Your task to perform on an android device: turn off notifications settings in the gmail app Image 0: 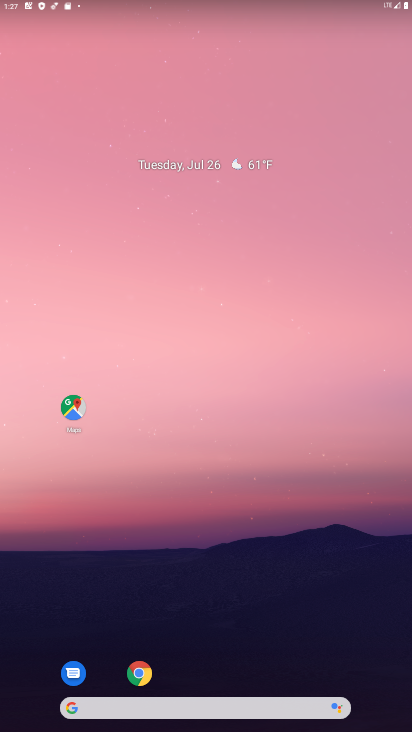
Step 0: drag from (195, 727) to (151, 158)
Your task to perform on an android device: turn off notifications settings in the gmail app Image 1: 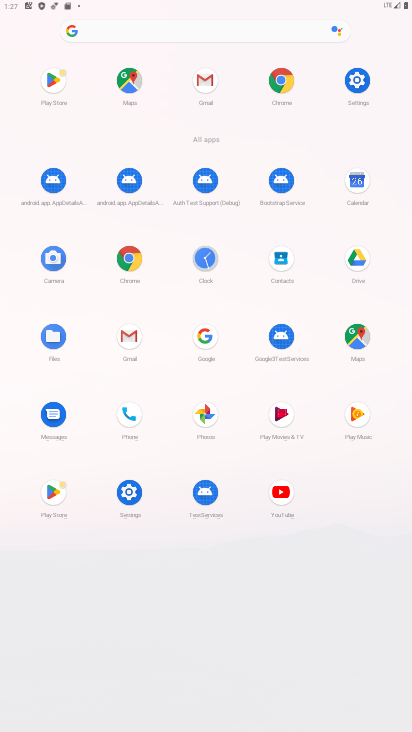
Step 1: click (128, 338)
Your task to perform on an android device: turn off notifications settings in the gmail app Image 2: 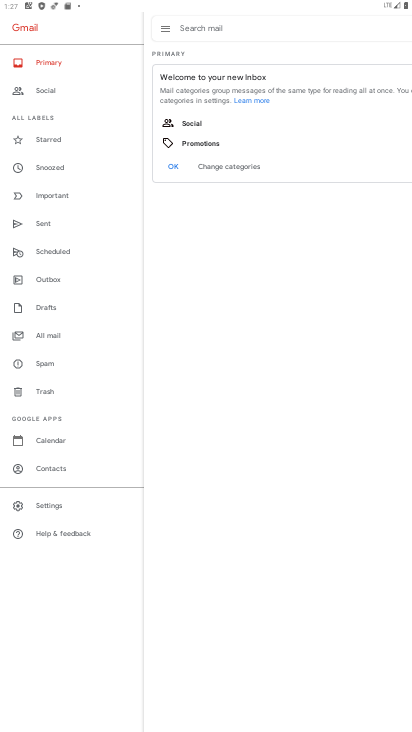
Step 2: click (42, 504)
Your task to perform on an android device: turn off notifications settings in the gmail app Image 3: 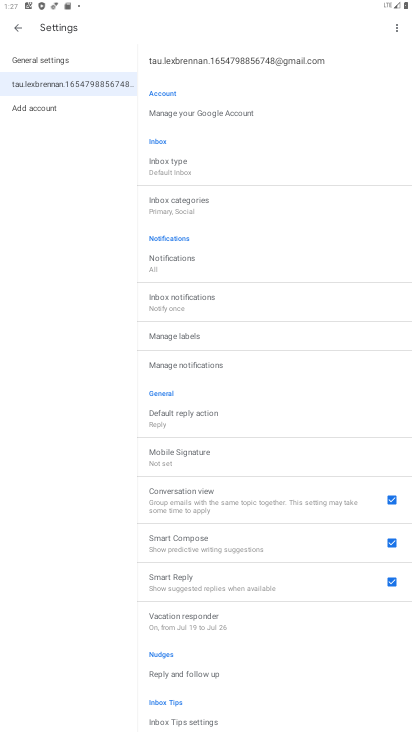
Step 3: click (168, 258)
Your task to perform on an android device: turn off notifications settings in the gmail app Image 4: 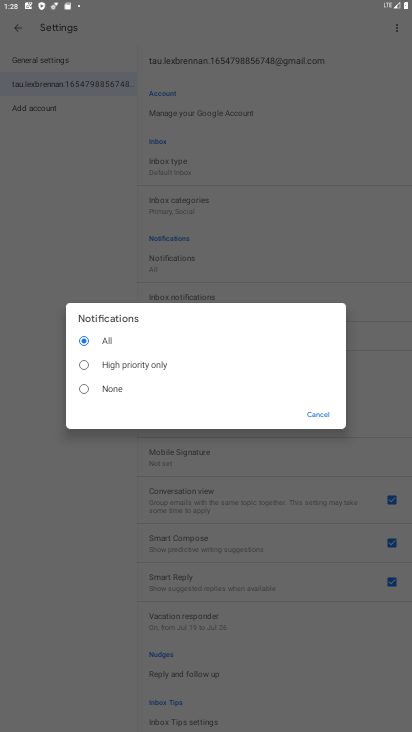
Step 4: click (83, 386)
Your task to perform on an android device: turn off notifications settings in the gmail app Image 5: 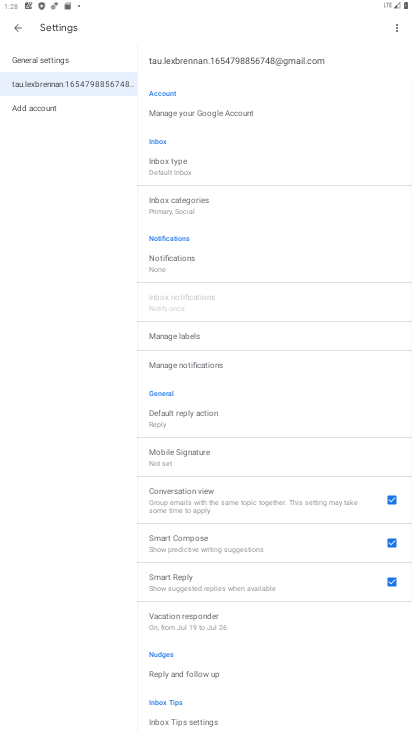
Step 5: task complete